Your task to perform on an android device: Open Chrome and go to settings Image 0: 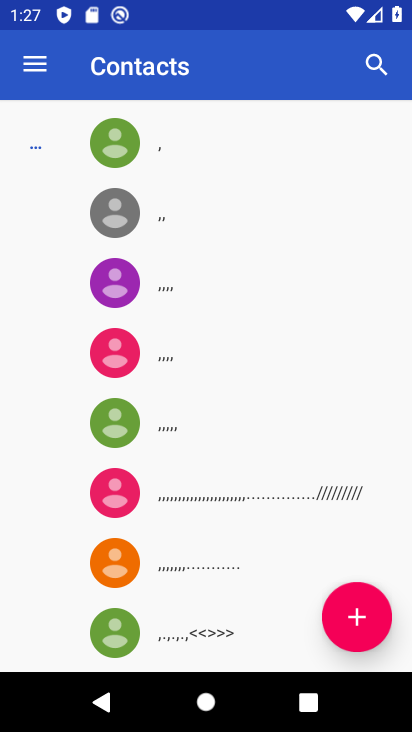
Step 0: press home button
Your task to perform on an android device: Open Chrome and go to settings Image 1: 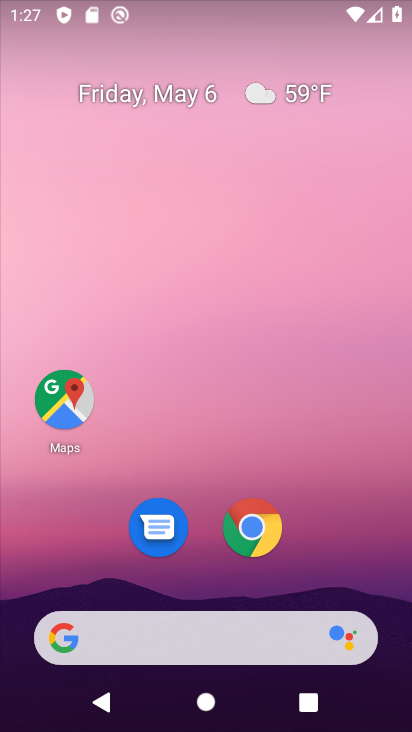
Step 1: click (241, 528)
Your task to perform on an android device: Open Chrome and go to settings Image 2: 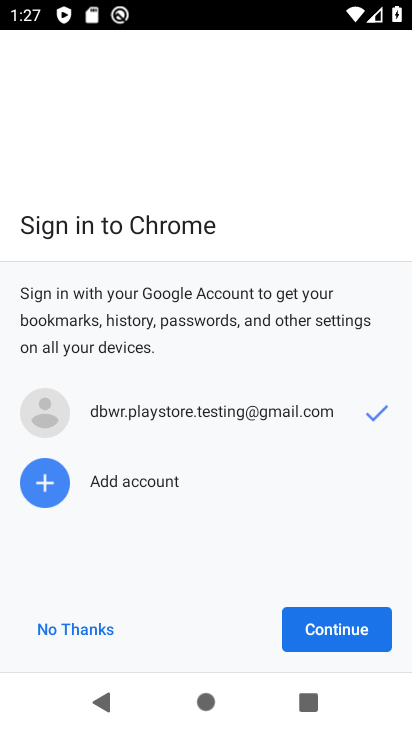
Step 2: click (327, 643)
Your task to perform on an android device: Open Chrome and go to settings Image 3: 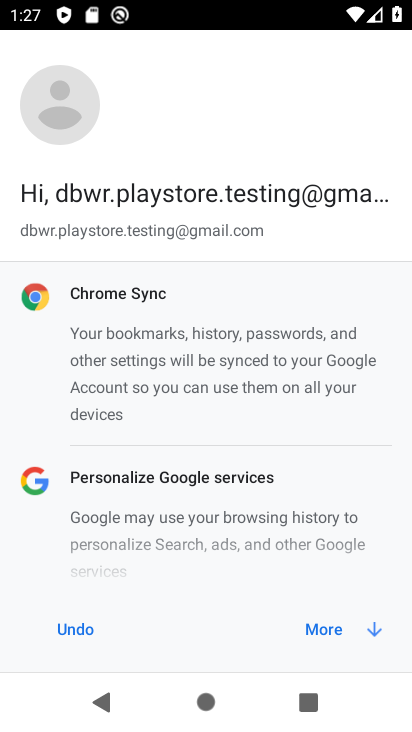
Step 3: click (332, 601)
Your task to perform on an android device: Open Chrome and go to settings Image 4: 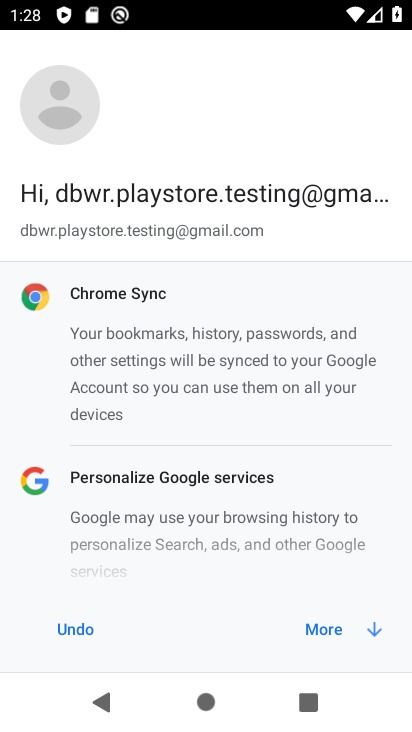
Step 4: drag from (61, 543) to (146, 156)
Your task to perform on an android device: Open Chrome and go to settings Image 5: 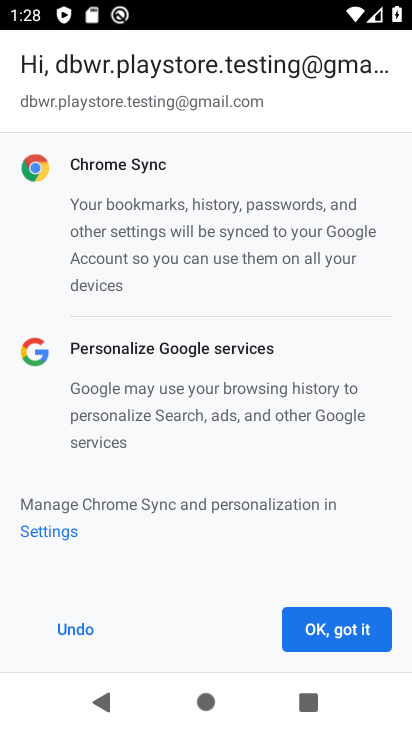
Step 5: click (357, 617)
Your task to perform on an android device: Open Chrome and go to settings Image 6: 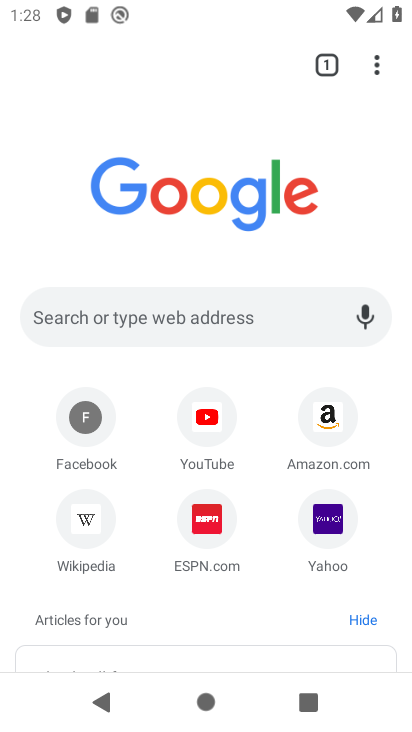
Step 6: click (379, 58)
Your task to perform on an android device: Open Chrome and go to settings Image 7: 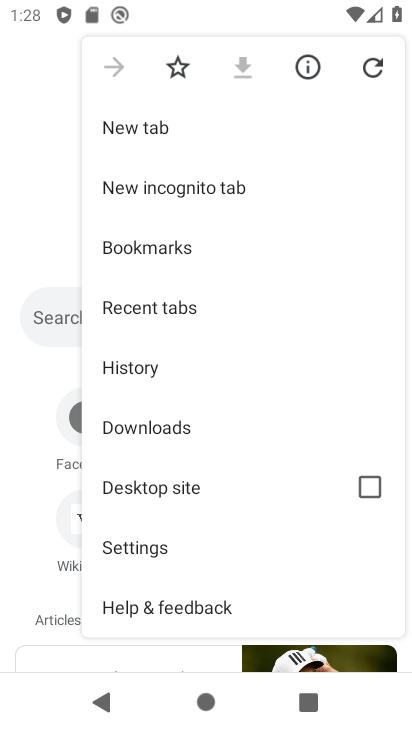
Step 7: click (184, 536)
Your task to perform on an android device: Open Chrome and go to settings Image 8: 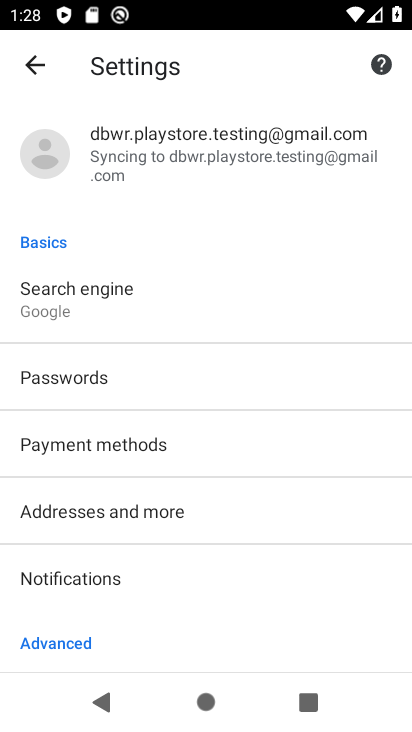
Step 8: task complete